Your task to perform on an android device: see sites visited before in the chrome app Image 0: 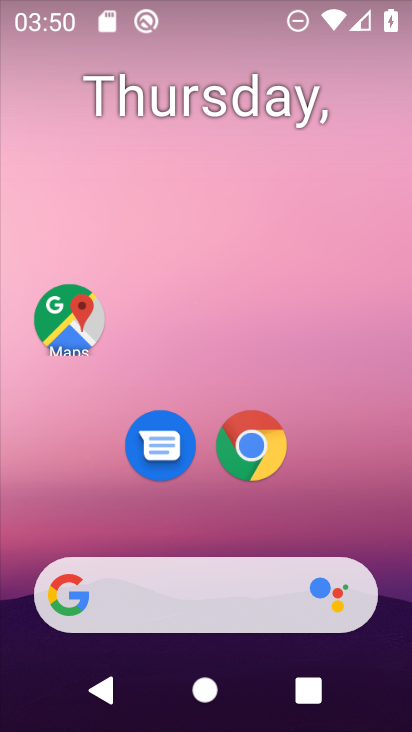
Step 0: click (245, 437)
Your task to perform on an android device: see sites visited before in the chrome app Image 1: 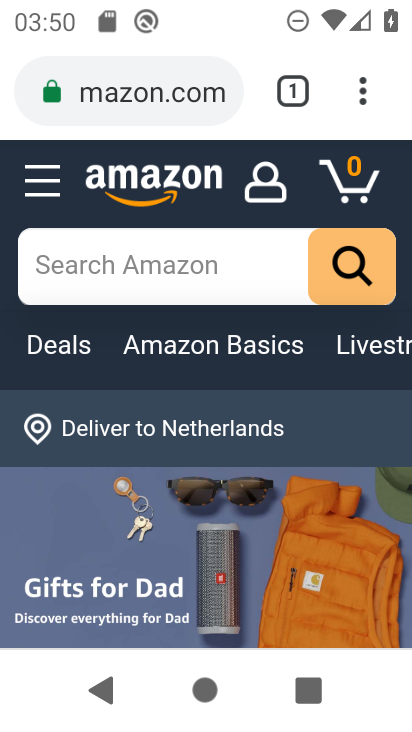
Step 1: click (366, 94)
Your task to perform on an android device: see sites visited before in the chrome app Image 2: 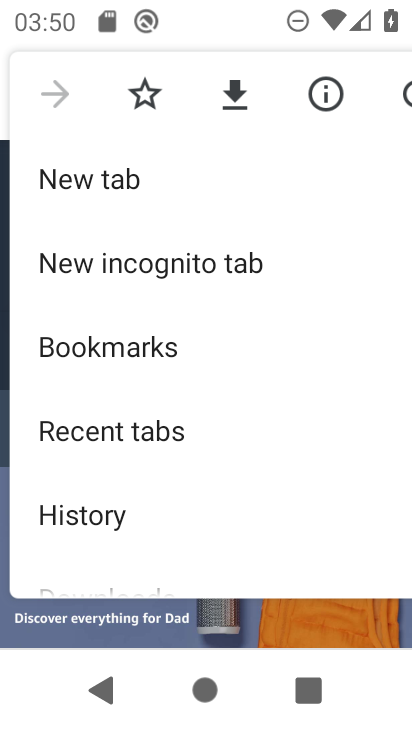
Step 2: drag from (135, 472) to (154, 254)
Your task to perform on an android device: see sites visited before in the chrome app Image 3: 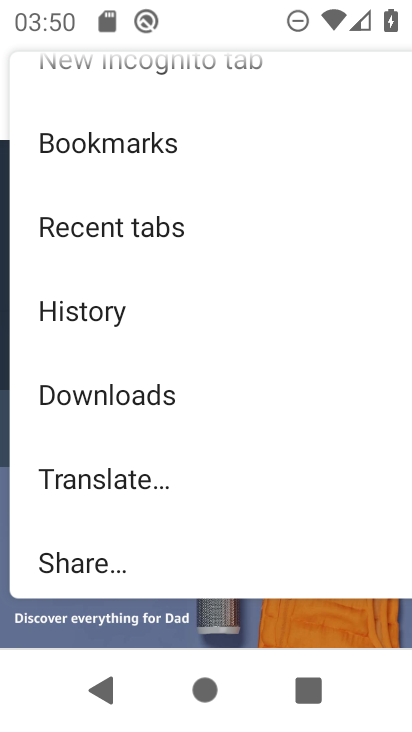
Step 3: click (90, 324)
Your task to perform on an android device: see sites visited before in the chrome app Image 4: 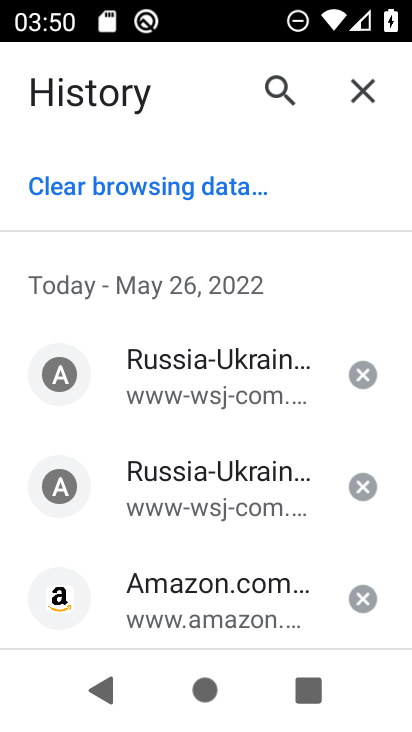
Step 4: task complete